Your task to perform on an android device: show emergency info Image 0: 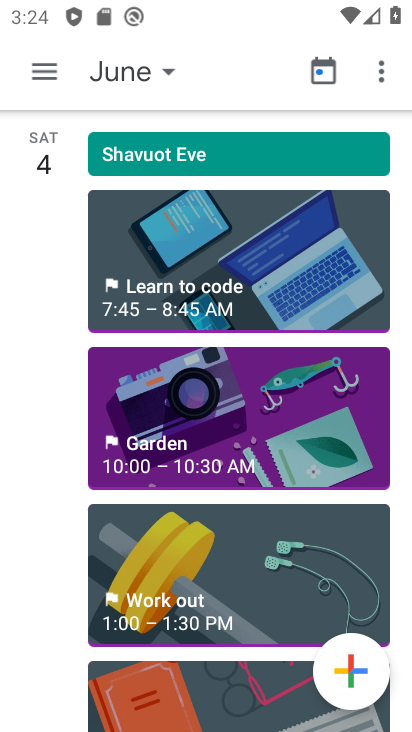
Step 0: press home button
Your task to perform on an android device: show emergency info Image 1: 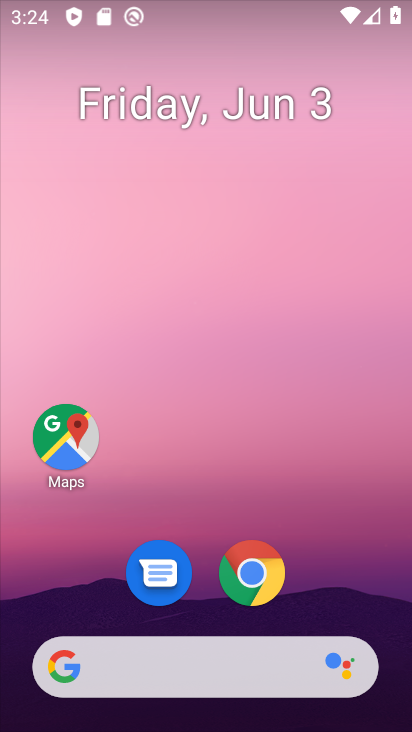
Step 1: drag from (407, 695) to (366, 136)
Your task to perform on an android device: show emergency info Image 2: 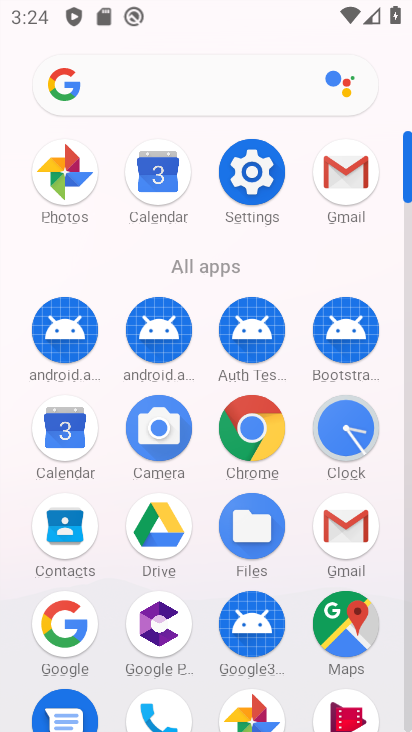
Step 2: click (238, 180)
Your task to perform on an android device: show emergency info Image 3: 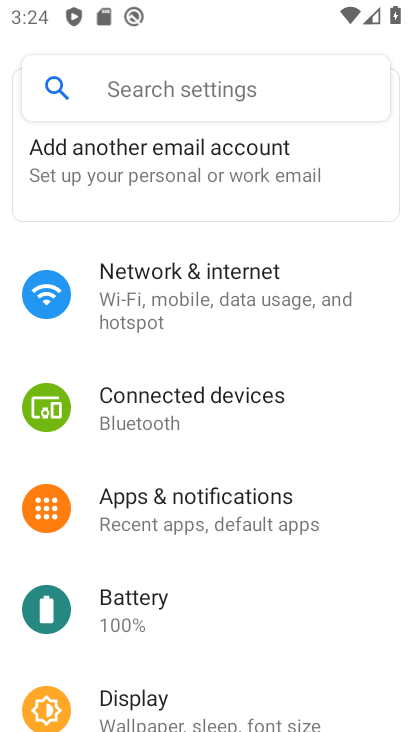
Step 3: drag from (347, 717) to (309, 265)
Your task to perform on an android device: show emergency info Image 4: 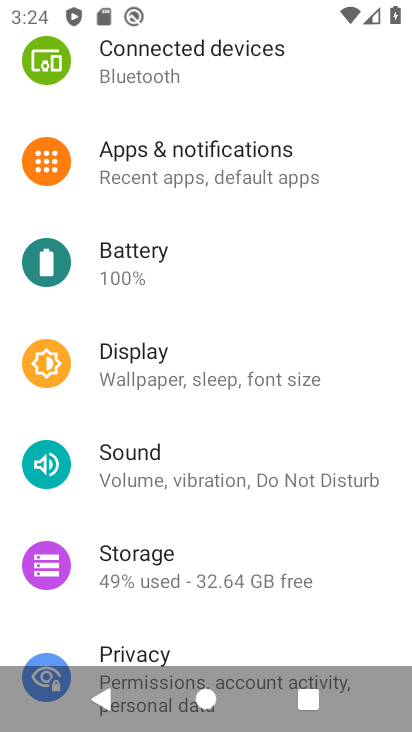
Step 4: drag from (326, 656) to (317, 0)
Your task to perform on an android device: show emergency info Image 5: 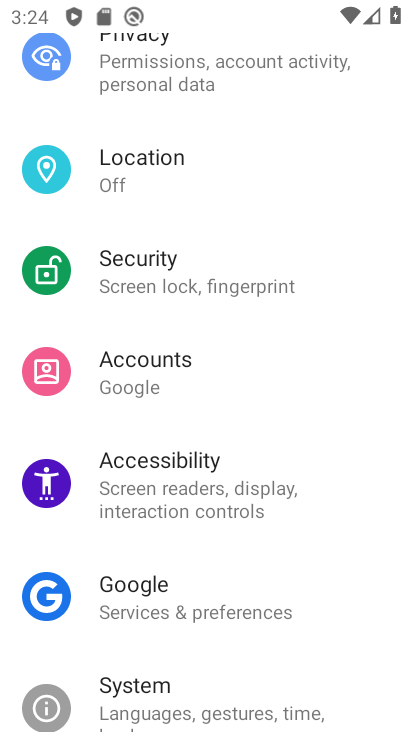
Step 5: drag from (331, 635) to (327, 184)
Your task to perform on an android device: show emergency info Image 6: 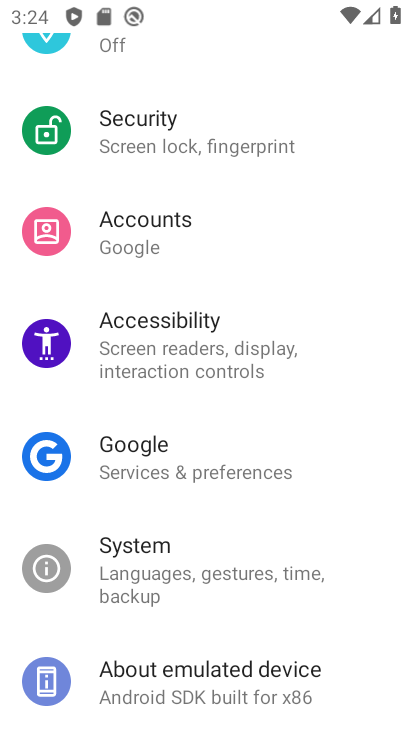
Step 6: click (229, 678)
Your task to perform on an android device: show emergency info Image 7: 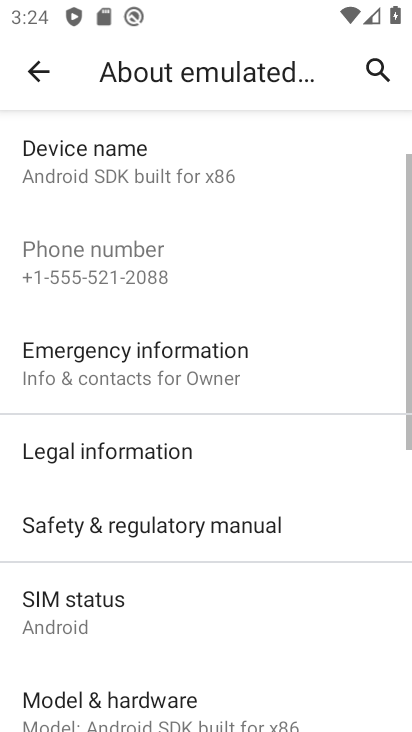
Step 7: drag from (283, 693) to (294, 13)
Your task to perform on an android device: show emergency info Image 8: 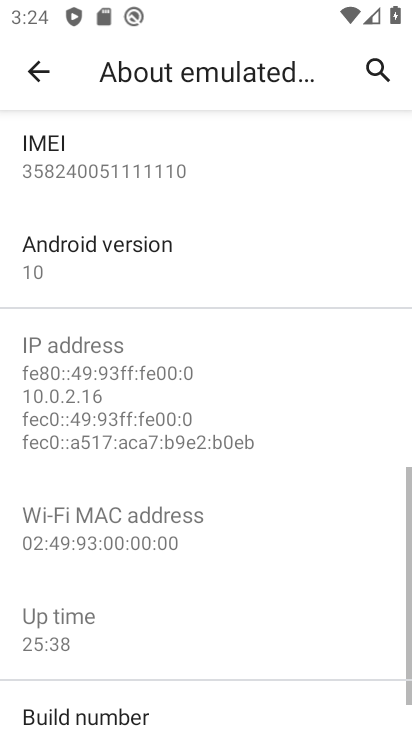
Step 8: drag from (337, 624) to (310, 129)
Your task to perform on an android device: show emergency info Image 9: 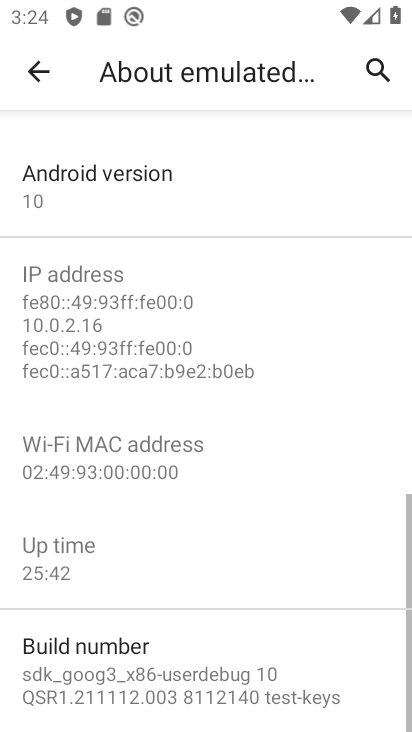
Step 9: drag from (334, 209) to (308, 579)
Your task to perform on an android device: show emergency info Image 10: 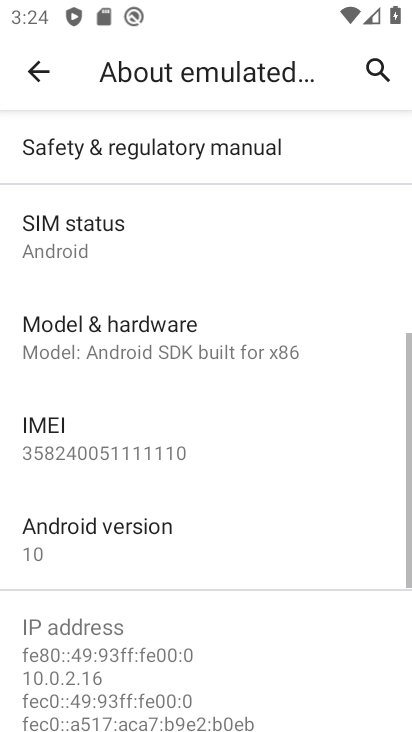
Step 10: drag from (308, 217) to (335, 525)
Your task to perform on an android device: show emergency info Image 11: 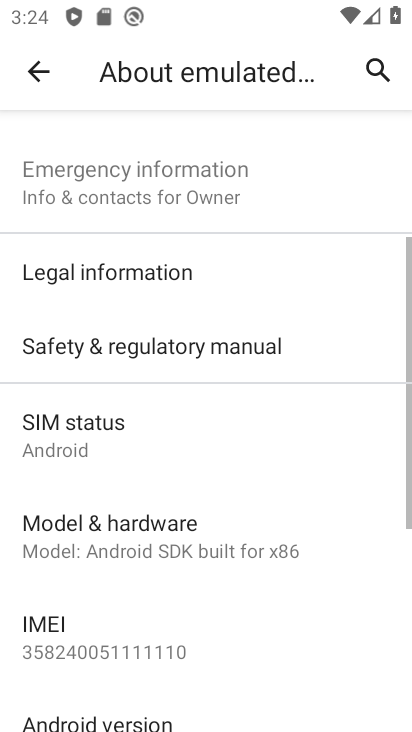
Step 11: drag from (277, 229) to (300, 542)
Your task to perform on an android device: show emergency info Image 12: 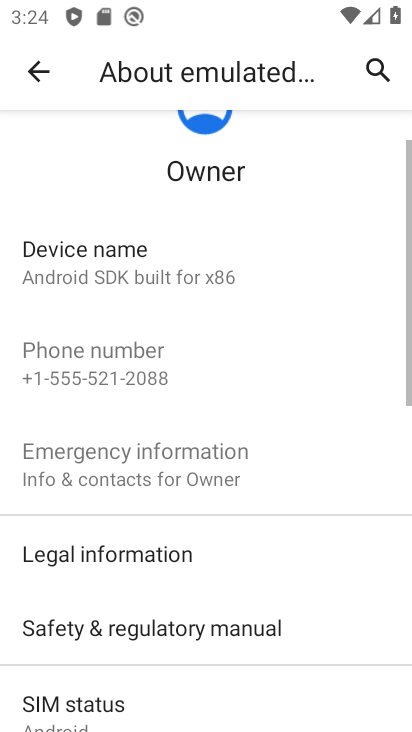
Step 12: click (113, 461)
Your task to perform on an android device: show emergency info Image 13: 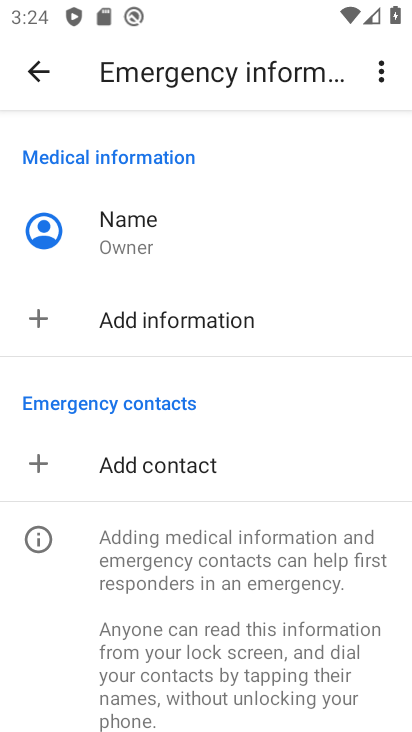
Step 13: task complete